Your task to perform on an android device: turn off airplane mode Image 0: 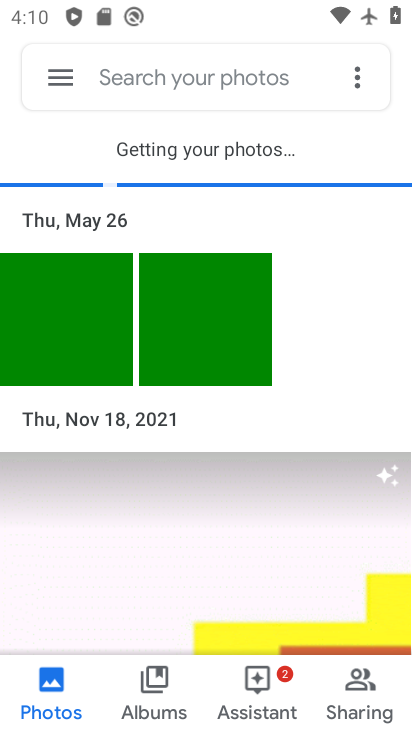
Step 0: press home button
Your task to perform on an android device: turn off airplane mode Image 1: 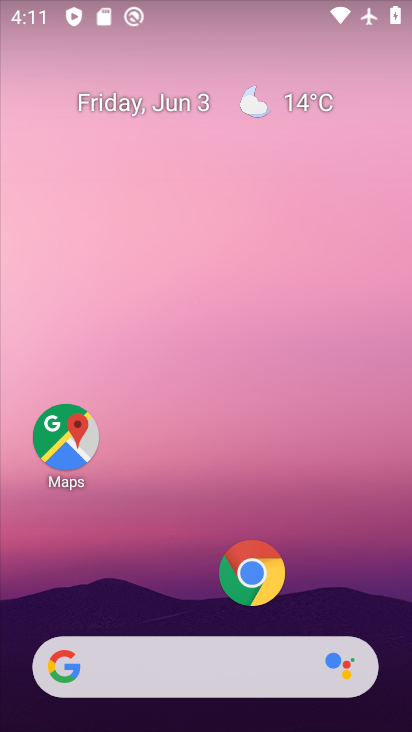
Step 1: drag from (314, 193) to (359, 19)
Your task to perform on an android device: turn off airplane mode Image 2: 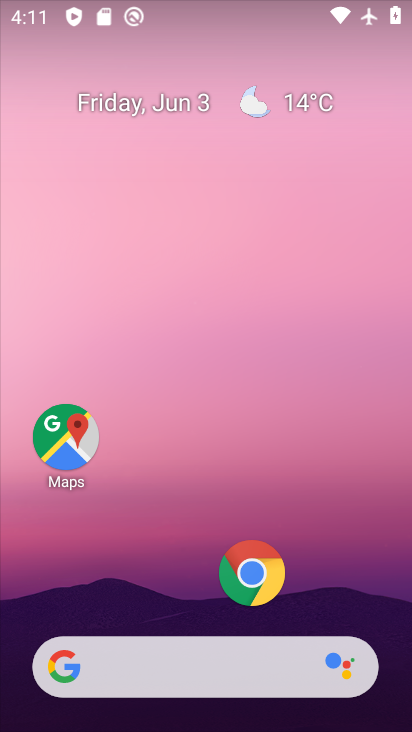
Step 2: drag from (128, 637) to (169, 148)
Your task to perform on an android device: turn off airplane mode Image 3: 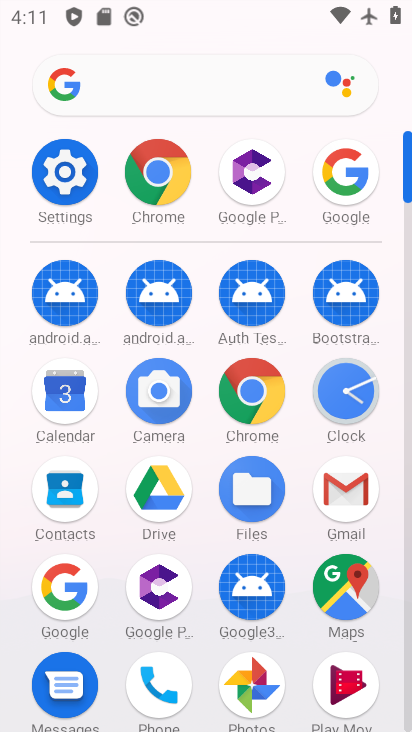
Step 3: click (84, 165)
Your task to perform on an android device: turn off airplane mode Image 4: 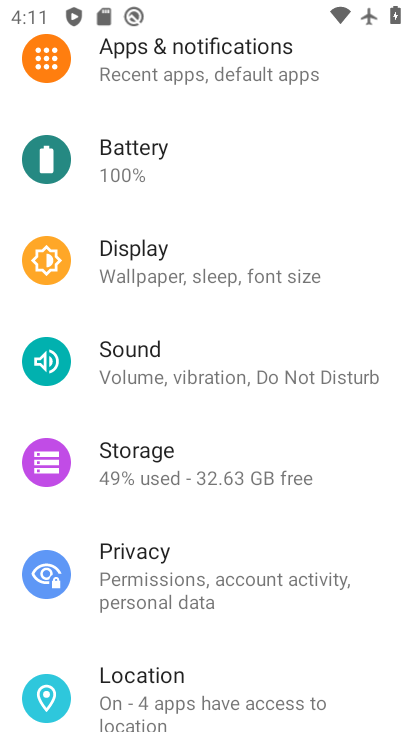
Step 4: drag from (273, 300) to (199, 605)
Your task to perform on an android device: turn off airplane mode Image 5: 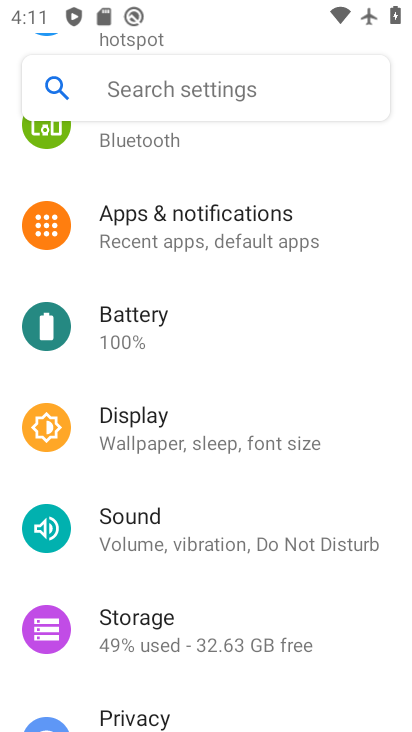
Step 5: drag from (235, 350) to (227, 620)
Your task to perform on an android device: turn off airplane mode Image 6: 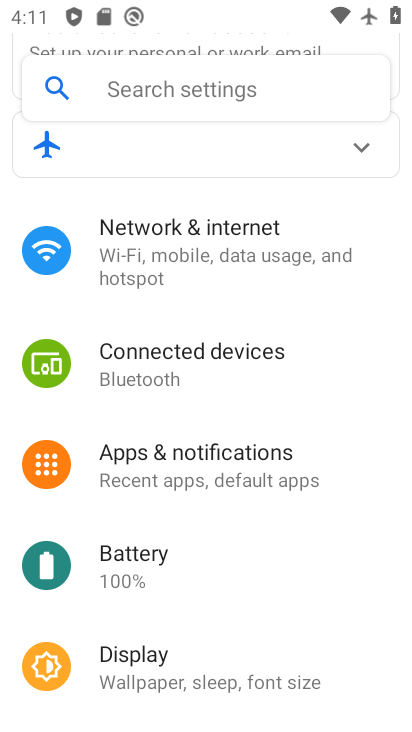
Step 6: click (241, 257)
Your task to perform on an android device: turn off airplane mode Image 7: 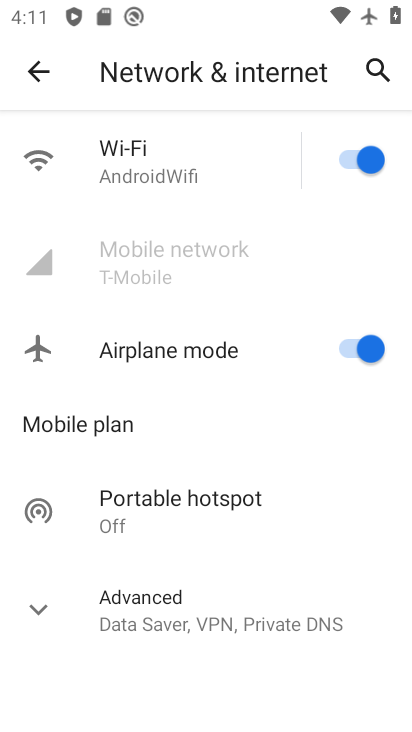
Step 7: click (351, 338)
Your task to perform on an android device: turn off airplane mode Image 8: 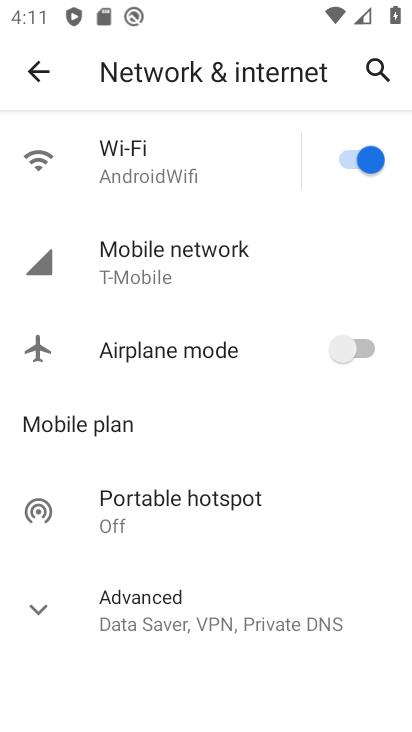
Step 8: task complete